Your task to perform on an android device: Go to display settings Image 0: 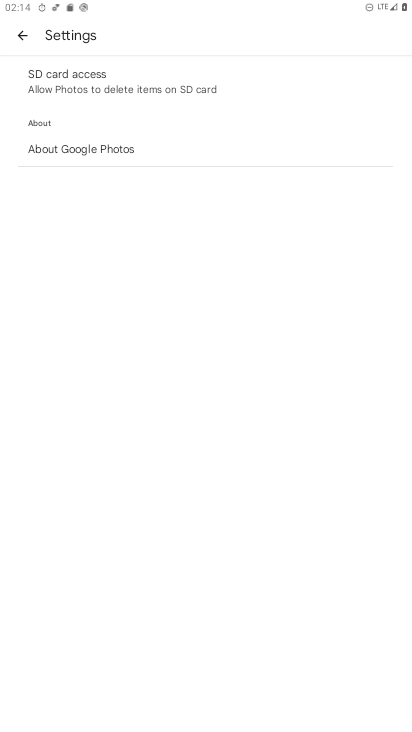
Step 0: press home button
Your task to perform on an android device: Go to display settings Image 1: 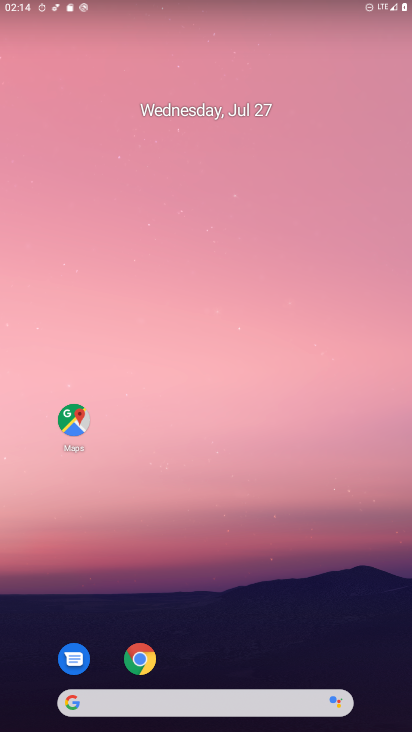
Step 1: drag from (238, 376) to (218, 24)
Your task to perform on an android device: Go to display settings Image 2: 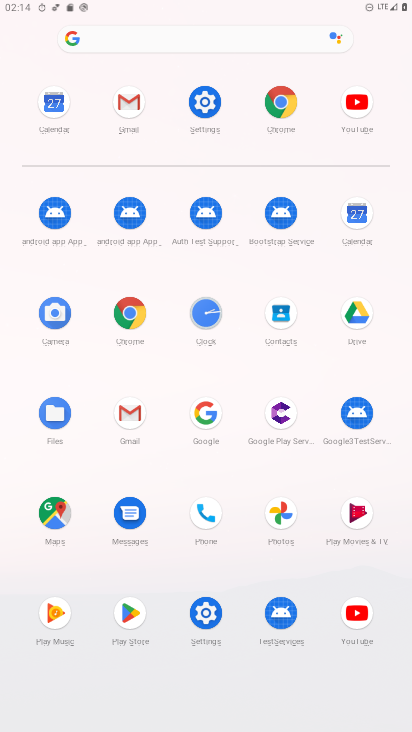
Step 2: click (198, 99)
Your task to perform on an android device: Go to display settings Image 3: 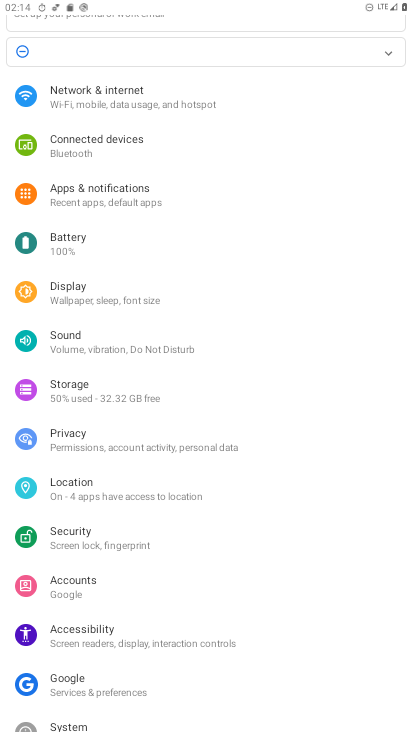
Step 3: click (106, 287)
Your task to perform on an android device: Go to display settings Image 4: 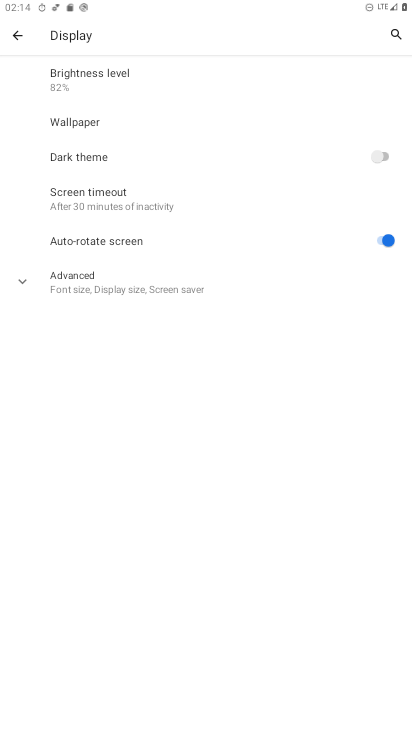
Step 4: task complete